Your task to perform on an android device: toggle notification dots Image 0: 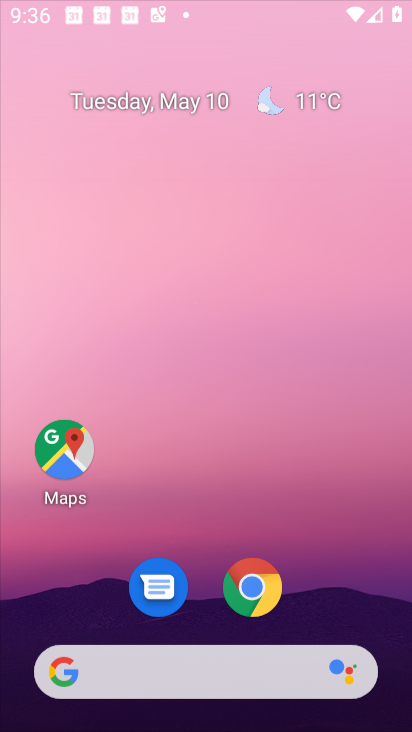
Step 0: drag from (300, 179) to (324, 293)
Your task to perform on an android device: toggle notification dots Image 1: 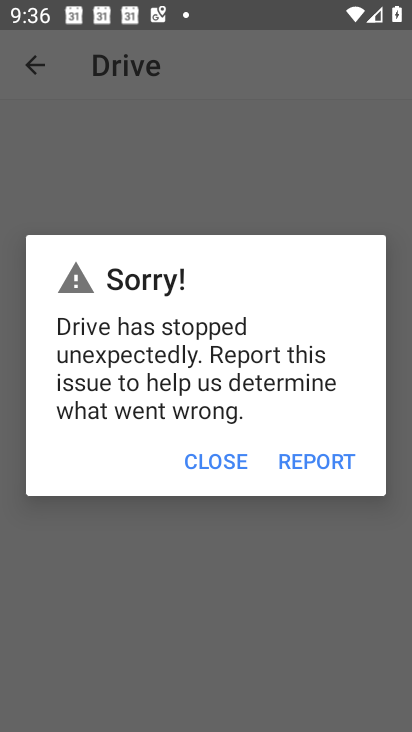
Step 1: press home button
Your task to perform on an android device: toggle notification dots Image 2: 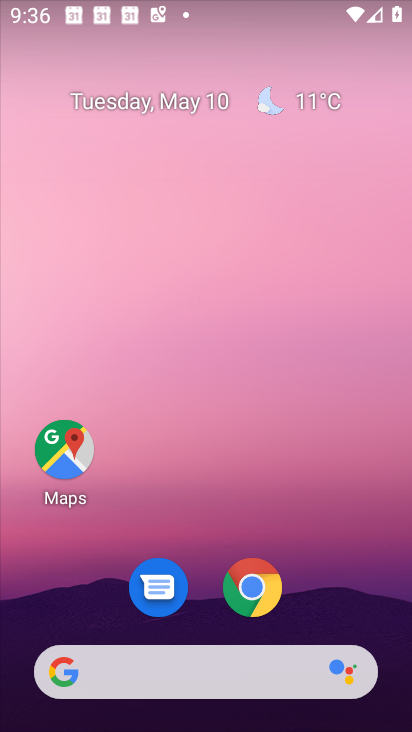
Step 2: drag from (342, 587) to (327, 228)
Your task to perform on an android device: toggle notification dots Image 3: 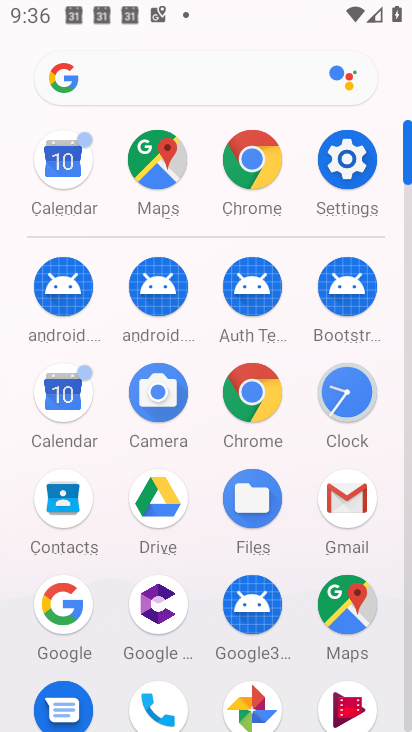
Step 3: click (344, 164)
Your task to perform on an android device: toggle notification dots Image 4: 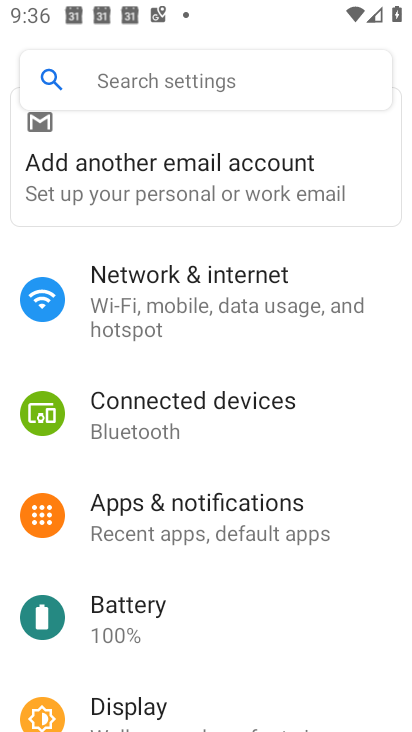
Step 4: click (229, 528)
Your task to perform on an android device: toggle notification dots Image 5: 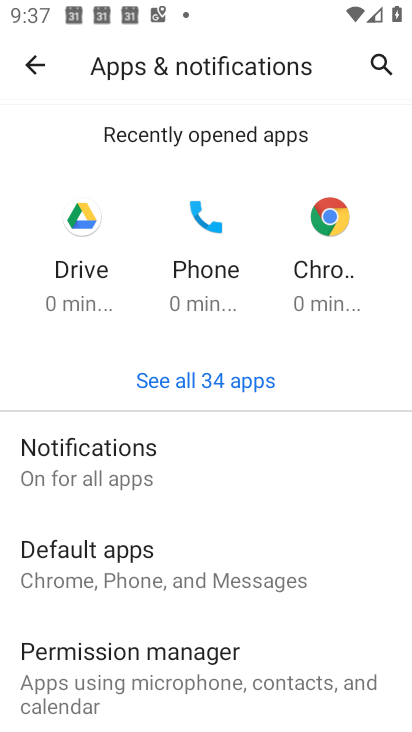
Step 5: click (127, 476)
Your task to perform on an android device: toggle notification dots Image 6: 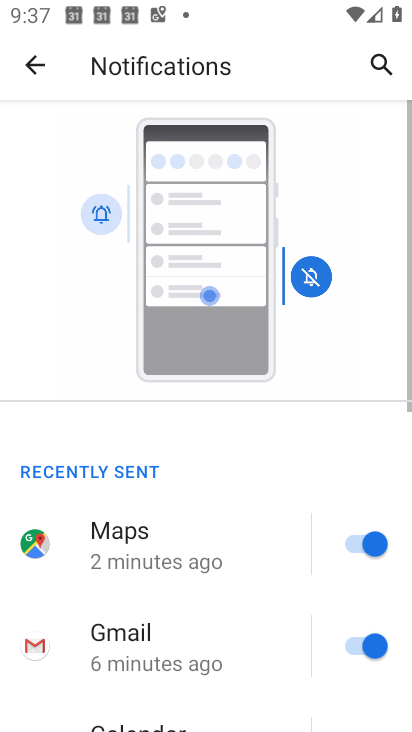
Step 6: drag from (241, 646) to (257, 276)
Your task to perform on an android device: toggle notification dots Image 7: 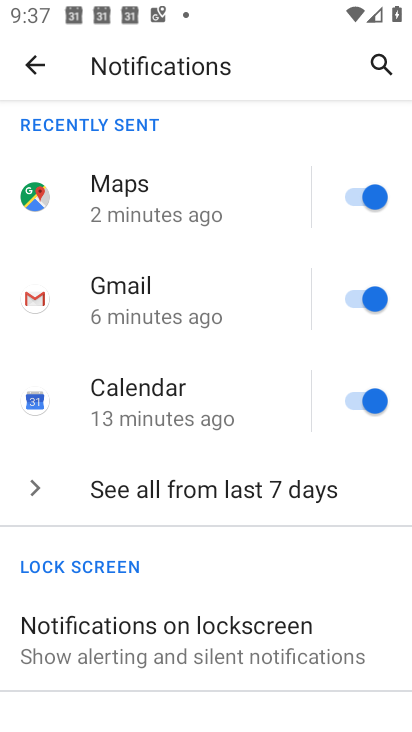
Step 7: drag from (244, 592) to (273, 307)
Your task to perform on an android device: toggle notification dots Image 8: 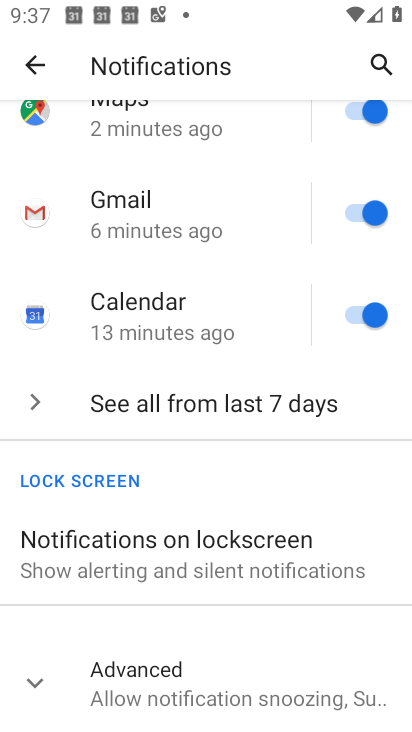
Step 8: drag from (247, 632) to (248, 486)
Your task to perform on an android device: toggle notification dots Image 9: 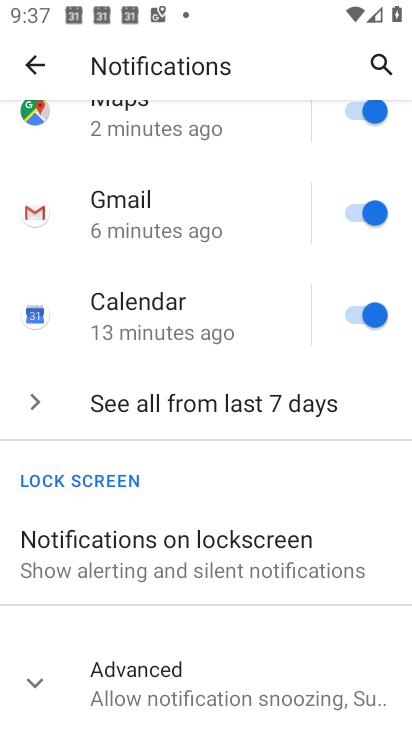
Step 9: click (191, 679)
Your task to perform on an android device: toggle notification dots Image 10: 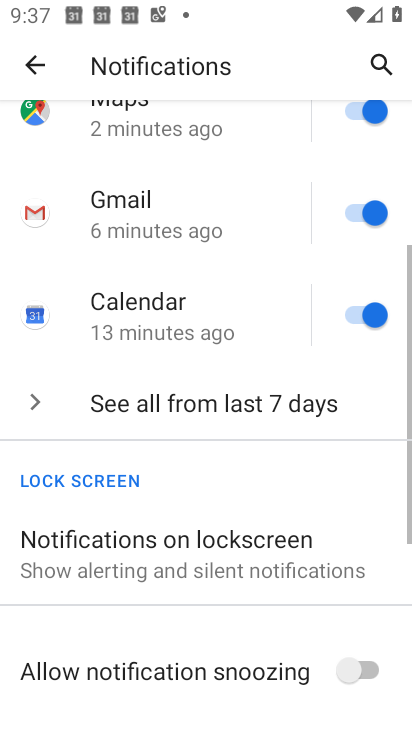
Step 10: drag from (203, 715) to (245, 467)
Your task to perform on an android device: toggle notification dots Image 11: 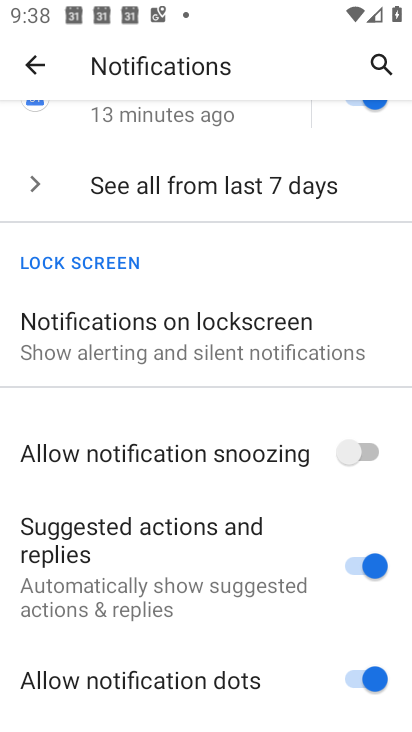
Step 11: drag from (140, 654) to (150, 385)
Your task to perform on an android device: toggle notification dots Image 12: 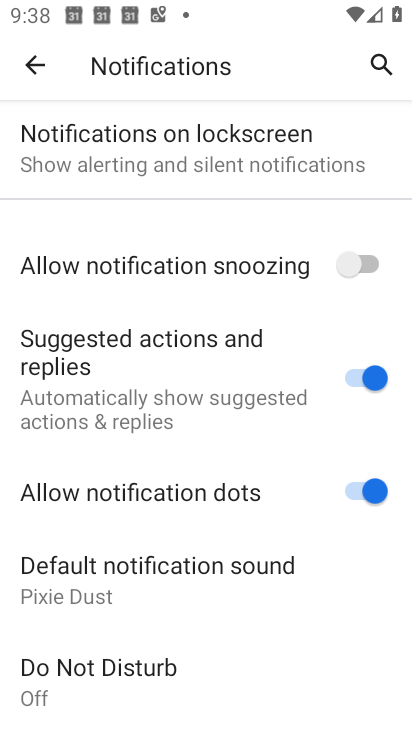
Step 12: click (358, 489)
Your task to perform on an android device: toggle notification dots Image 13: 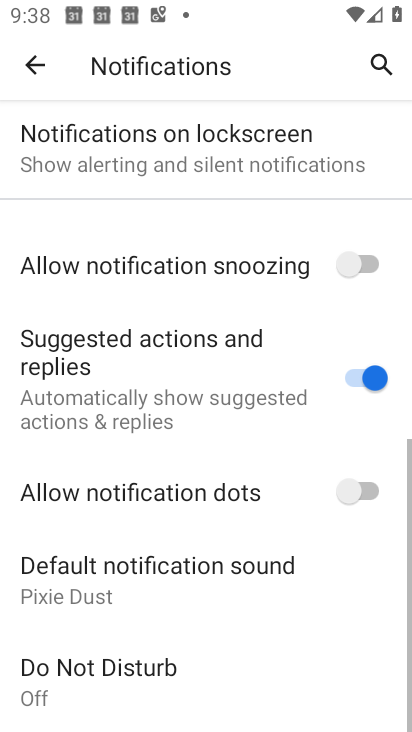
Step 13: task complete